Your task to perform on an android device: turn on showing notifications on the lock screen Image 0: 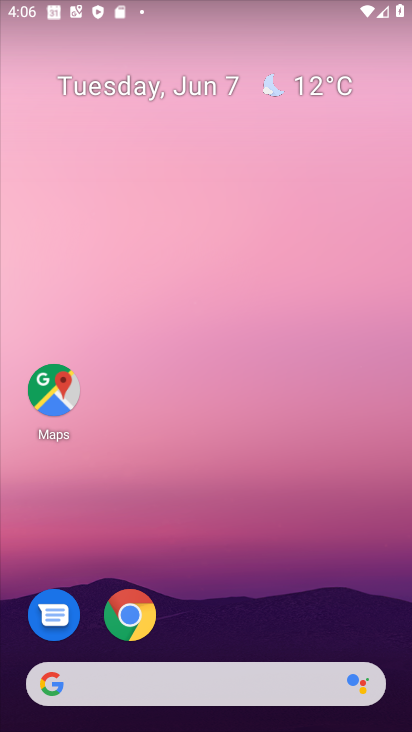
Step 0: drag from (242, 571) to (410, 118)
Your task to perform on an android device: turn on showing notifications on the lock screen Image 1: 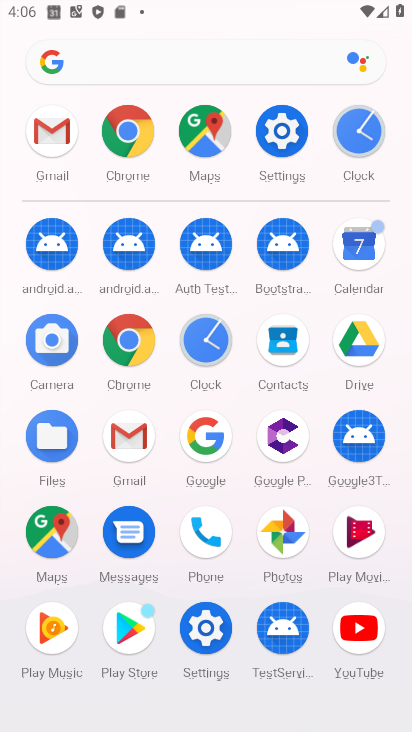
Step 1: click (213, 638)
Your task to perform on an android device: turn on showing notifications on the lock screen Image 2: 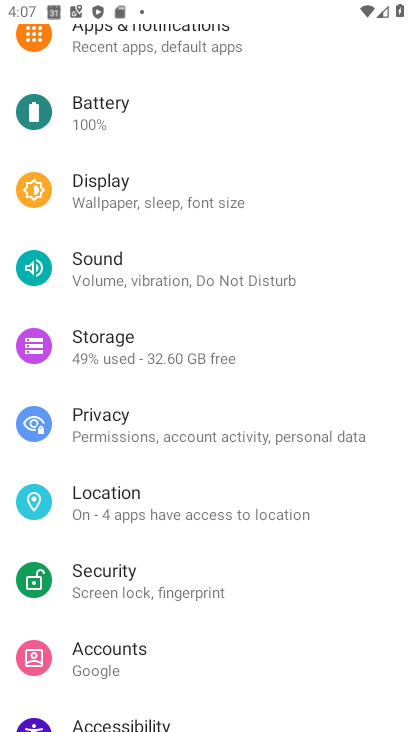
Step 2: drag from (198, 350) to (0, 432)
Your task to perform on an android device: turn on showing notifications on the lock screen Image 3: 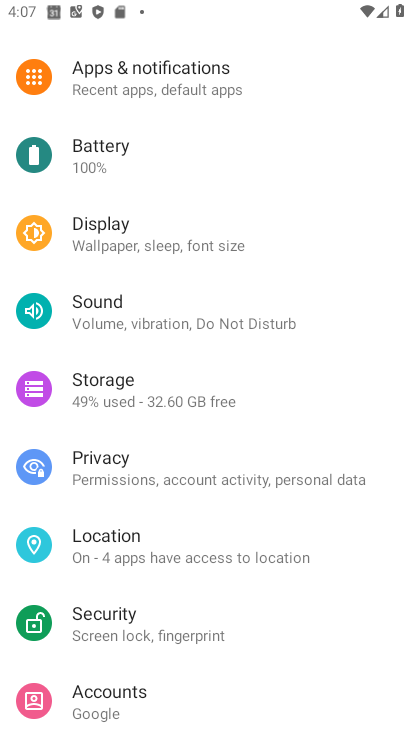
Step 3: click (183, 84)
Your task to perform on an android device: turn on showing notifications on the lock screen Image 4: 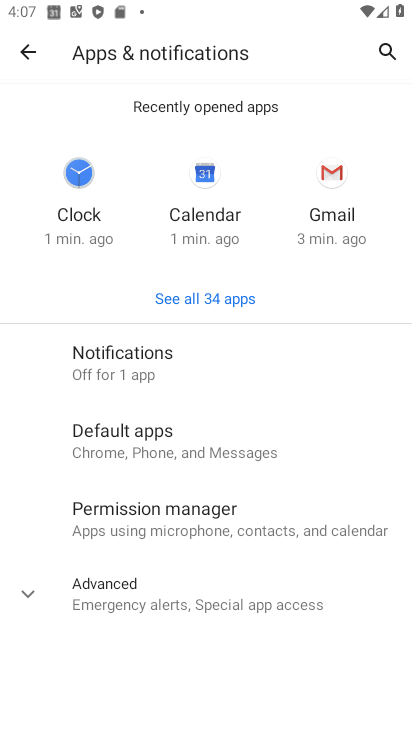
Step 4: click (164, 368)
Your task to perform on an android device: turn on showing notifications on the lock screen Image 5: 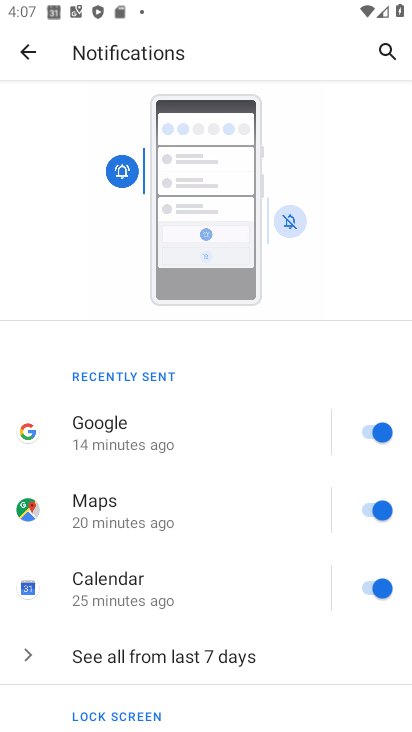
Step 5: drag from (164, 614) to (298, 143)
Your task to perform on an android device: turn on showing notifications on the lock screen Image 6: 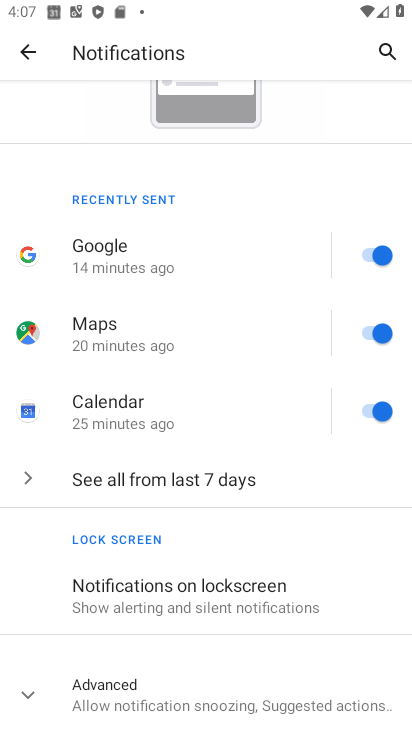
Step 6: click (201, 602)
Your task to perform on an android device: turn on showing notifications on the lock screen Image 7: 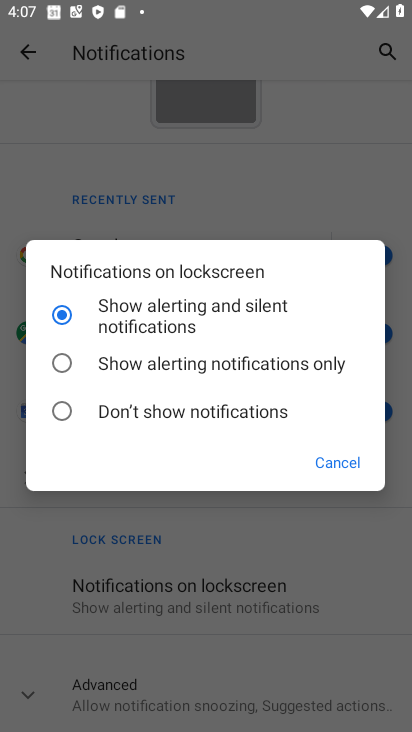
Step 7: task complete